Your task to perform on an android device: move an email to a new category in the gmail app Image 0: 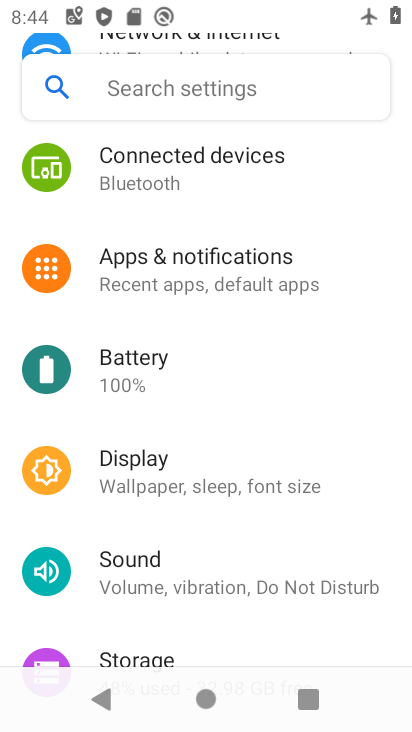
Step 0: press home button
Your task to perform on an android device: move an email to a new category in the gmail app Image 1: 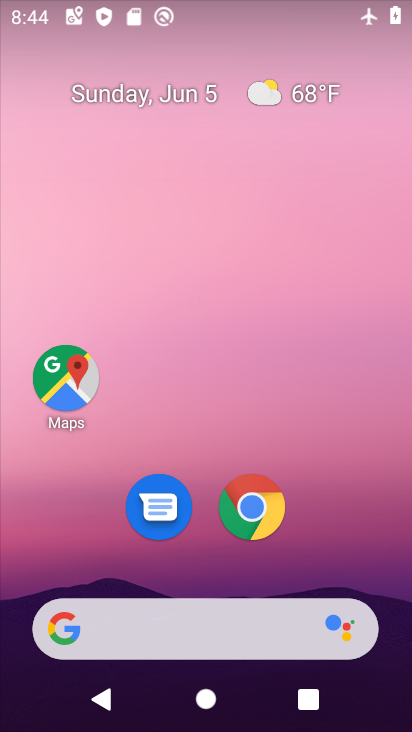
Step 1: drag from (179, 581) to (211, 0)
Your task to perform on an android device: move an email to a new category in the gmail app Image 2: 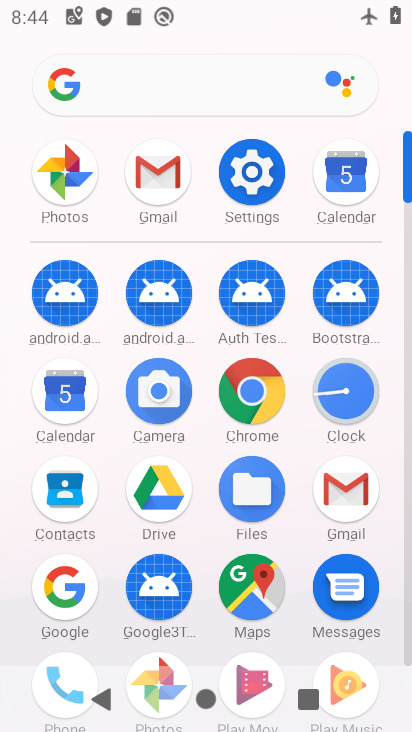
Step 2: click (341, 508)
Your task to perform on an android device: move an email to a new category in the gmail app Image 3: 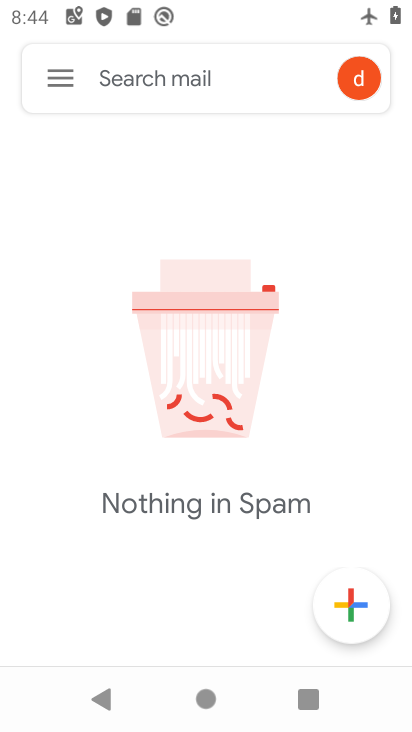
Step 3: click (48, 74)
Your task to perform on an android device: move an email to a new category in the gmail app Image 4: 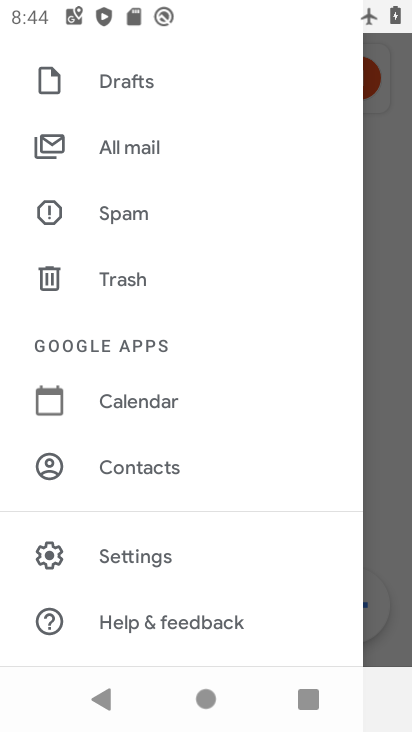
Step 4: click (136, 146)
Your task to perform on an android device: move an email to a new category in the gmail app Image 5: 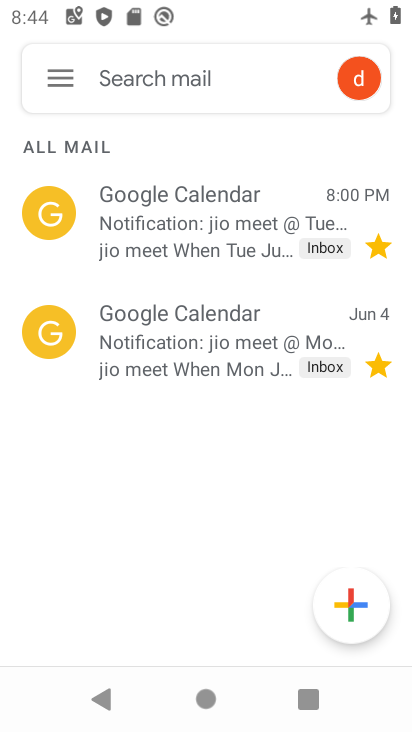
Step 5: click (52, 210)
Your task to perform on an android device: move an email to a new category in the gmail app Image 6: 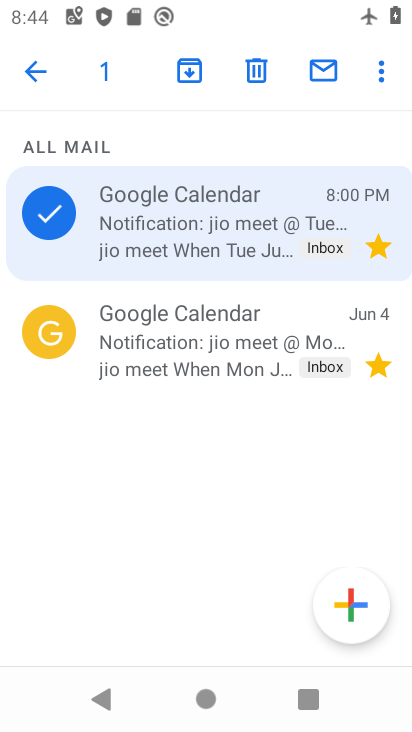
Step 6: click (380, 80)
Your task to perform on an android device: move an email to a new category in the gmail app Image 7: 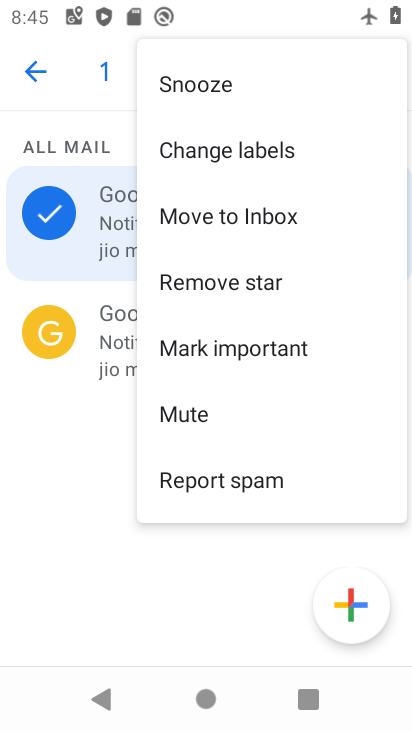
Step 7: click (267, 215)
Your task to perform on an android device: move an email to a new category in the gmail app Image 8: 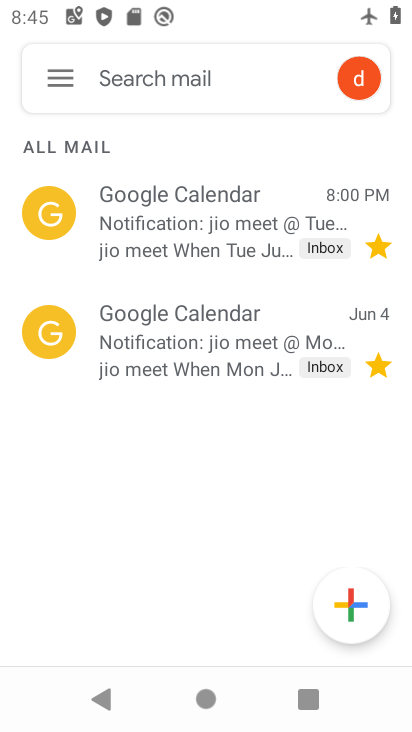
Step 8: task complete